Your task to perform on an android device: What's the weather? Image 0: 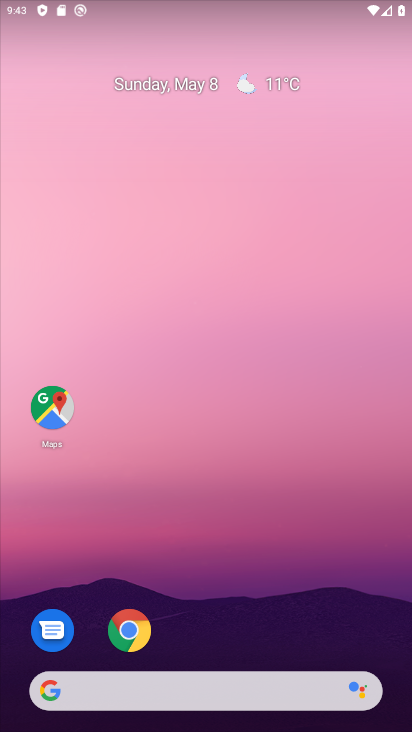
Step 0: click (194, 684)
Your task to perform on an android device: What's the weather? Image 1: 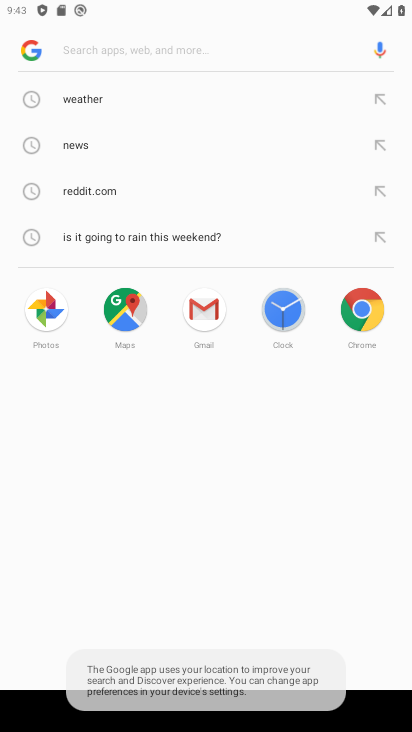
Step 1: click (173, 98)
Your task to perform on an android device: What's the weather? Image 2: 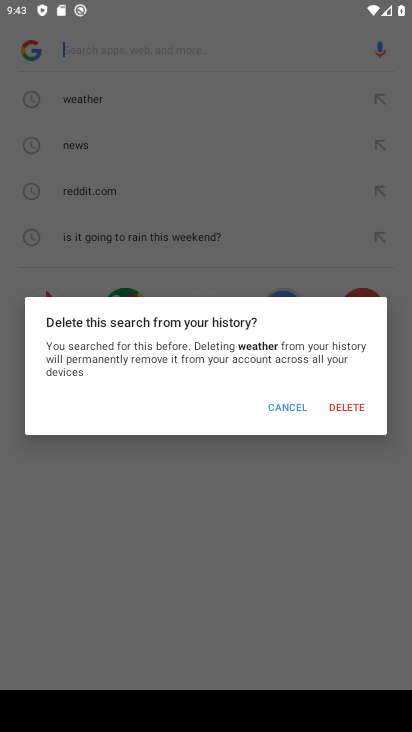
Step 2: click (295, 402)
Your task to perform on an android device: What's the weather? Image 3: 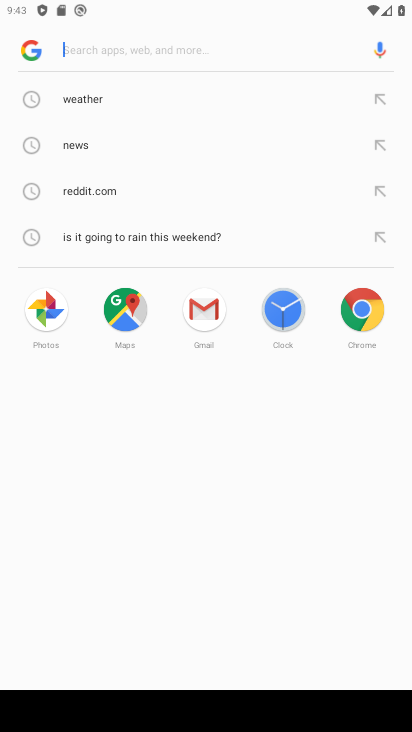
Step 3: click (163, 94)
Your task to perform on an android device: What's the weather? Image 4: 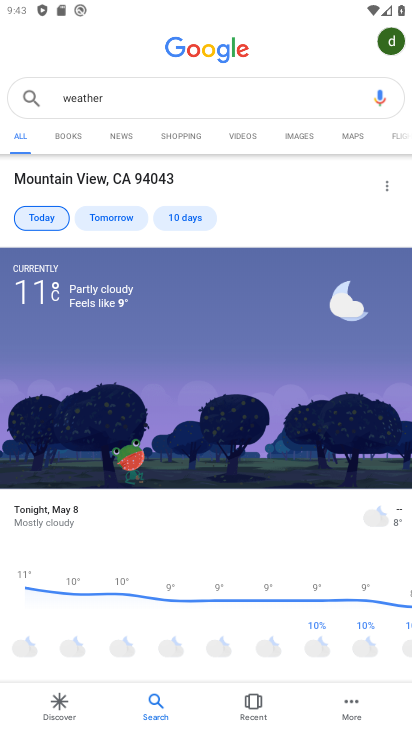
Step 4: task complete